Your task to perform on an android device: Open network settings Image 0: 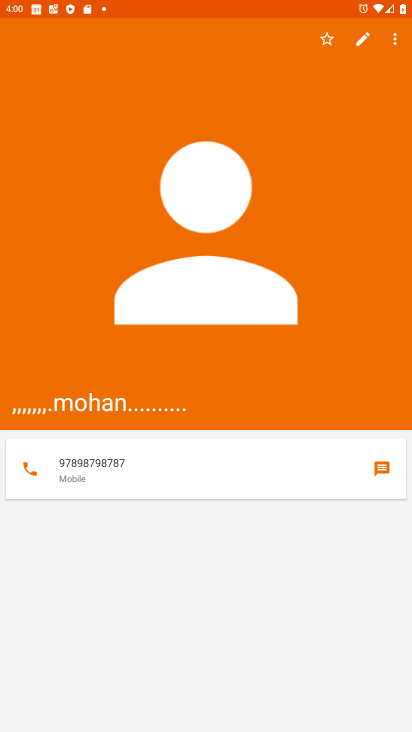
Step 0: press home button
Your task to perform on an android device: Open network settings Image 1: 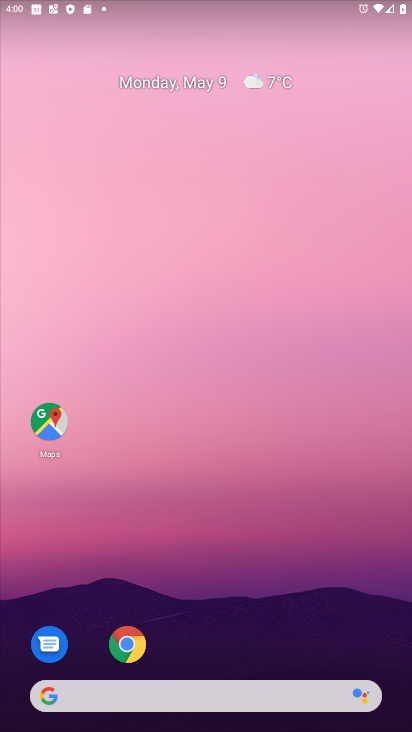
Step 1: drag from (186, 286) to (177, 217)
Your task to perform on an android device: Open network settings Image 2: 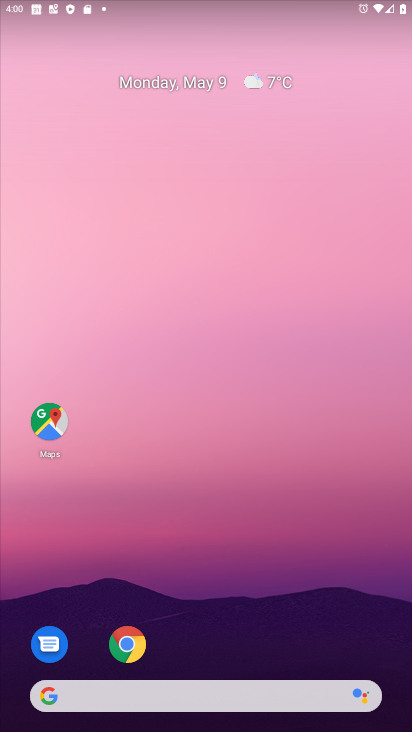
Step 2: drag from (335, 725) to (112, 214)
Your task to perform on an android device: Open network settings Image 3: 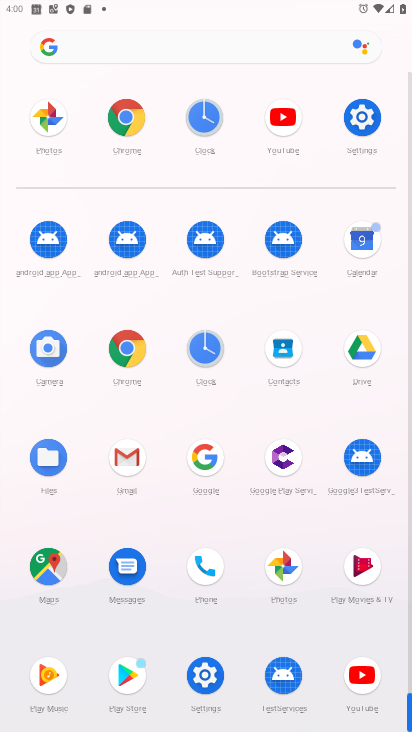
Step 3: click (359, 129)
Your task to perform on an android device: Open network settings Image 4: 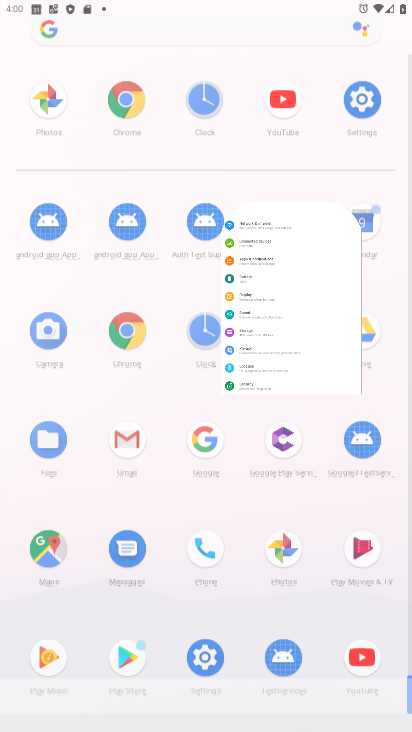
Step 4: click (359, 129)
Your task to perform on an android device: Open network settings Image 5: 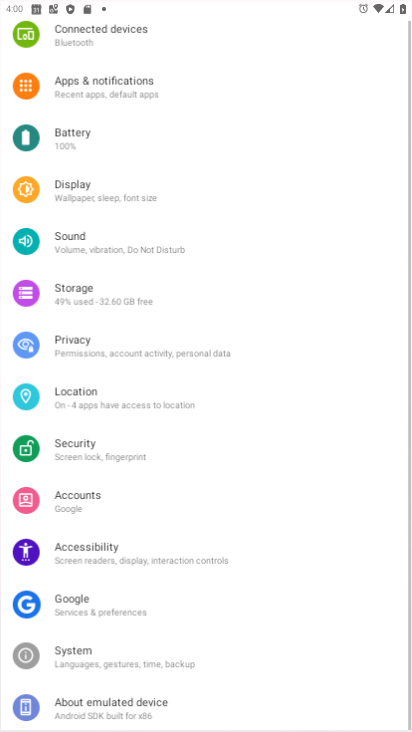
Step 5: click (359, 129)
Your task to perform on an android device: Open network settings Image 6: 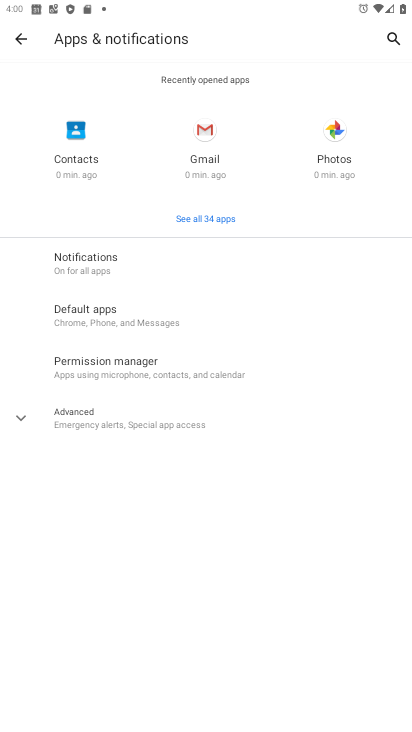
Step 6: click (5, 34)
Your task to perform on an android device: Open network settings Image 7: 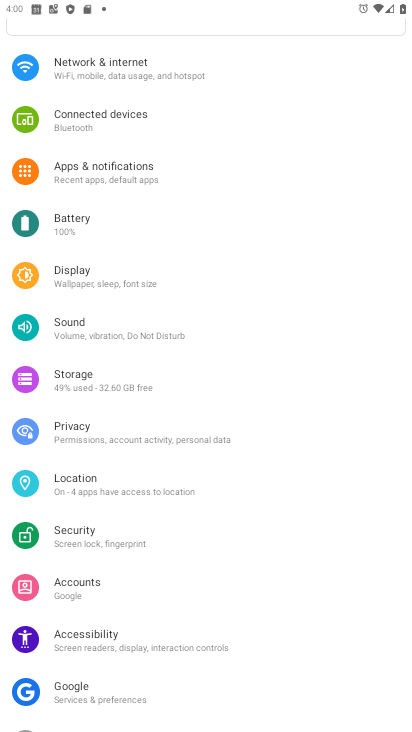
Step 7: click (90, 63)
Your task to perform on an android device: Open network settings Image 8: 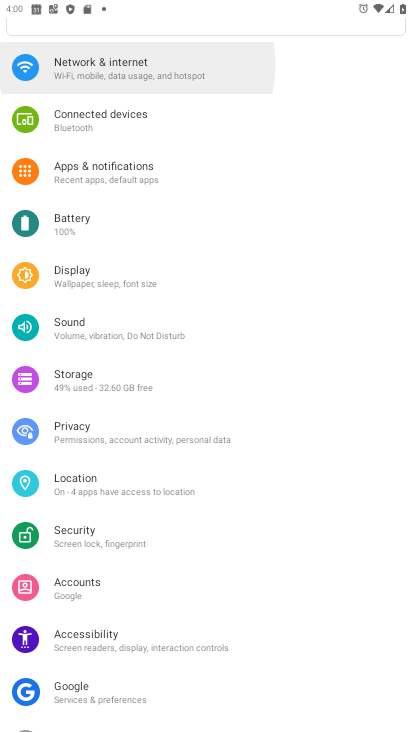
Step 8: click (92, 68)
Your task to perform on an android device: Open network settings Image 9: 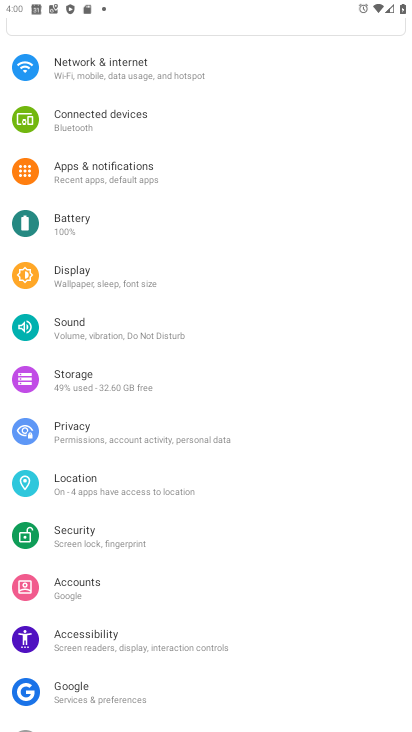
Step 9: click (91, 70)
Your task to perform on an android device: Open network settings Image 10: 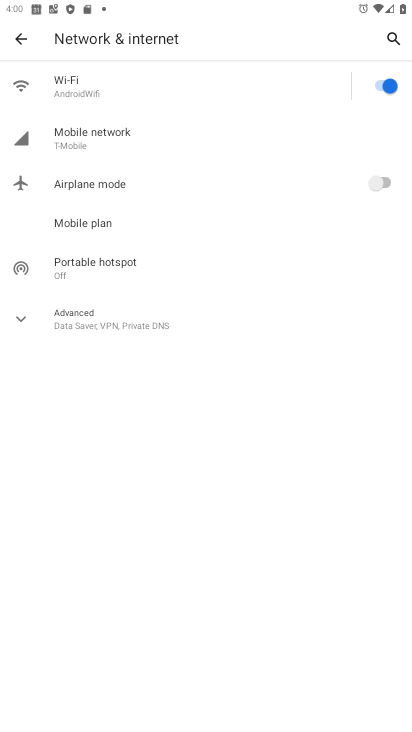
Step 10: click (155, 68)
Your task to perform on an android device: Open network settings Image 11: 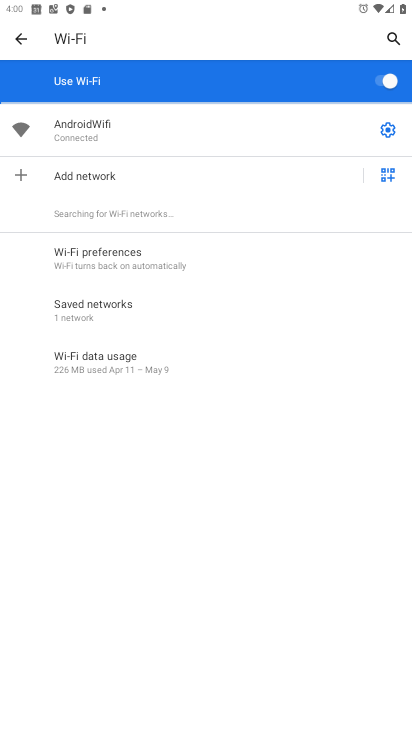
Step 11: task complete